Your task to perform on an android device: Open Yahoo.com Image 0: 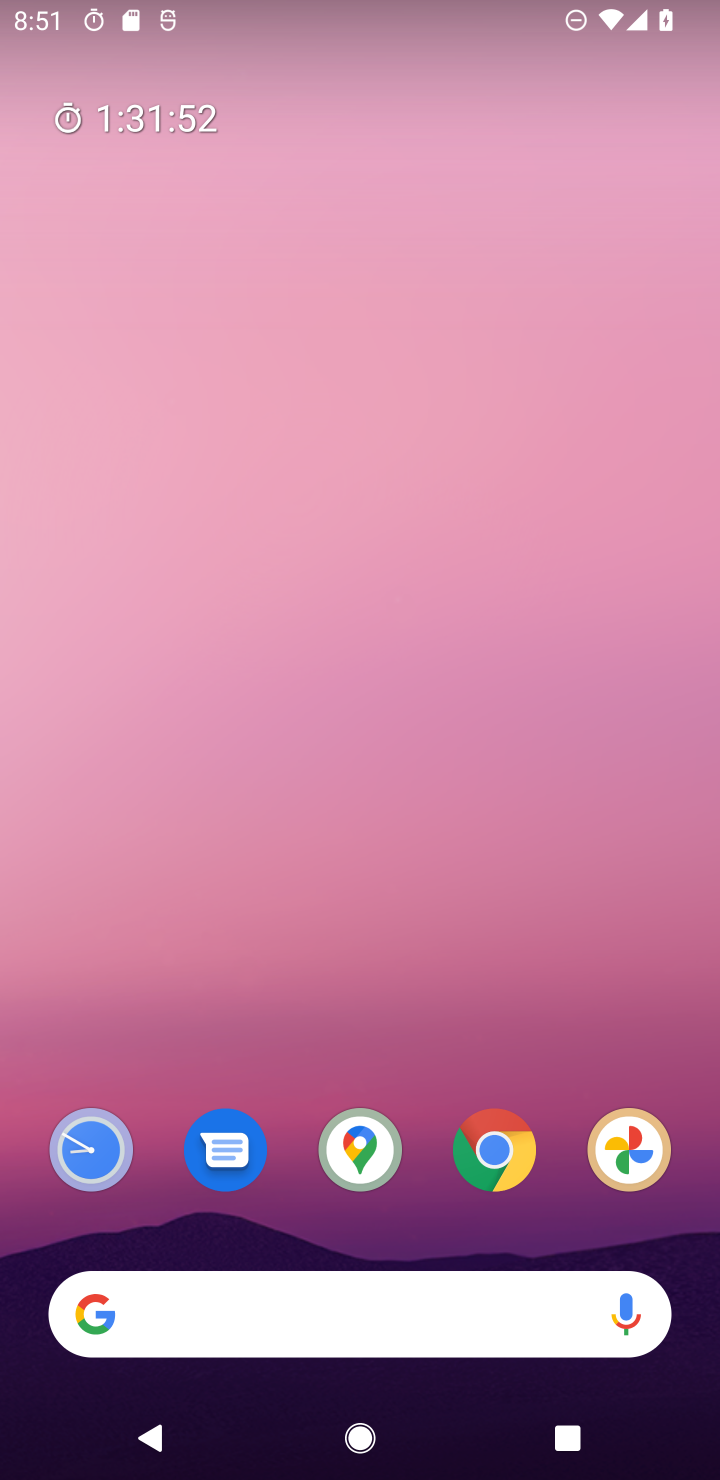
Step 0: drag from (378, 1285) to (705, 1135)
Your task to perform on an android device: Open Yahoo.com Image 1: 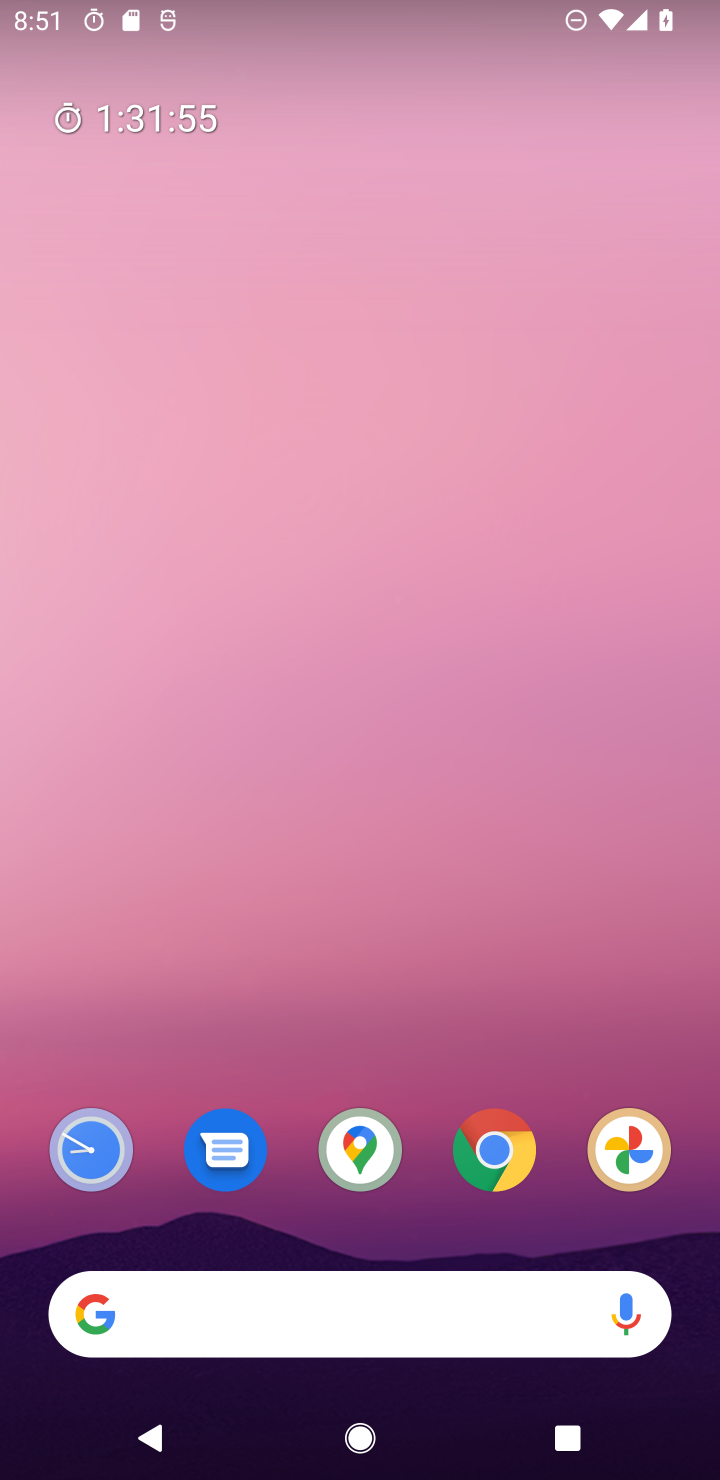
Step 1: click (377, 468)
Your task to perform on an android device: Open Yahoo.com Image 2: 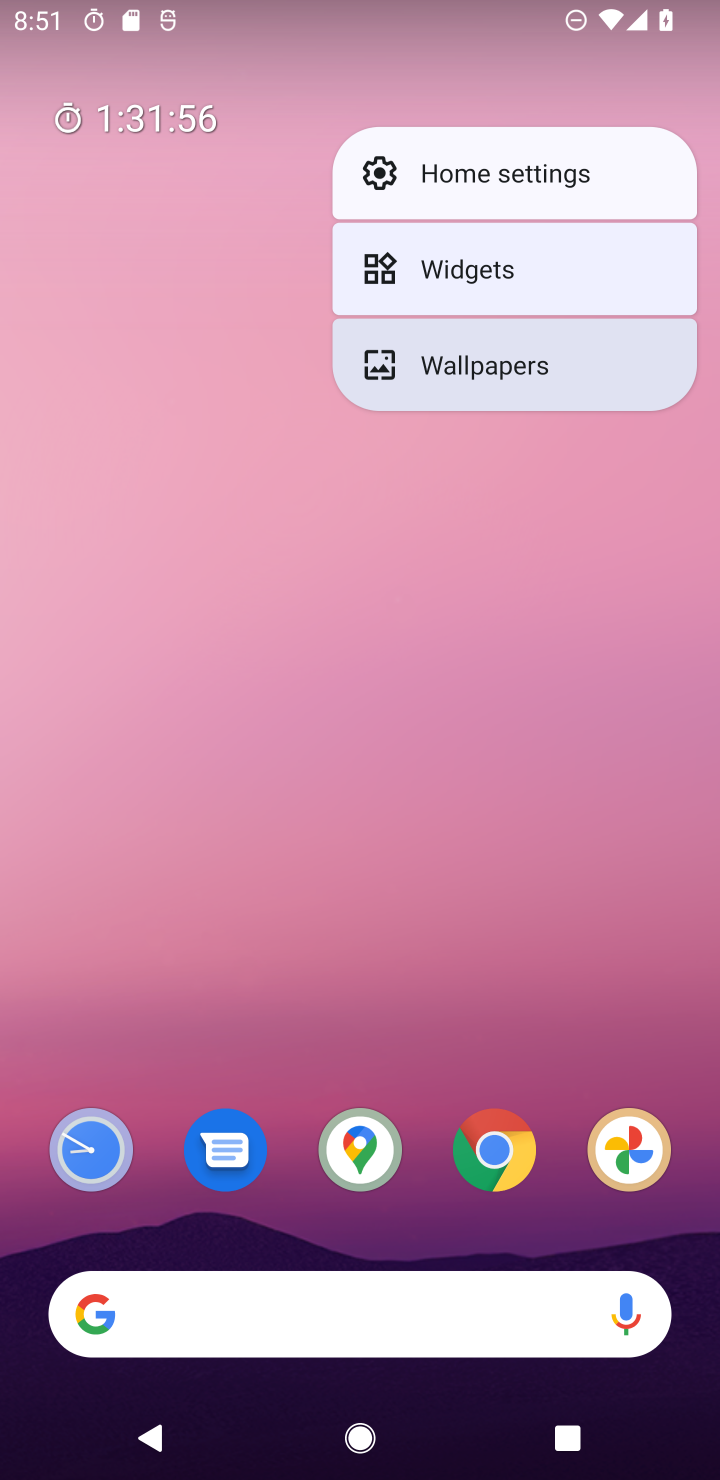
Step 2: drag from (523, 797) to (552, 45)
Your task to perform on an android device: Open Yahoo.com Image 3: 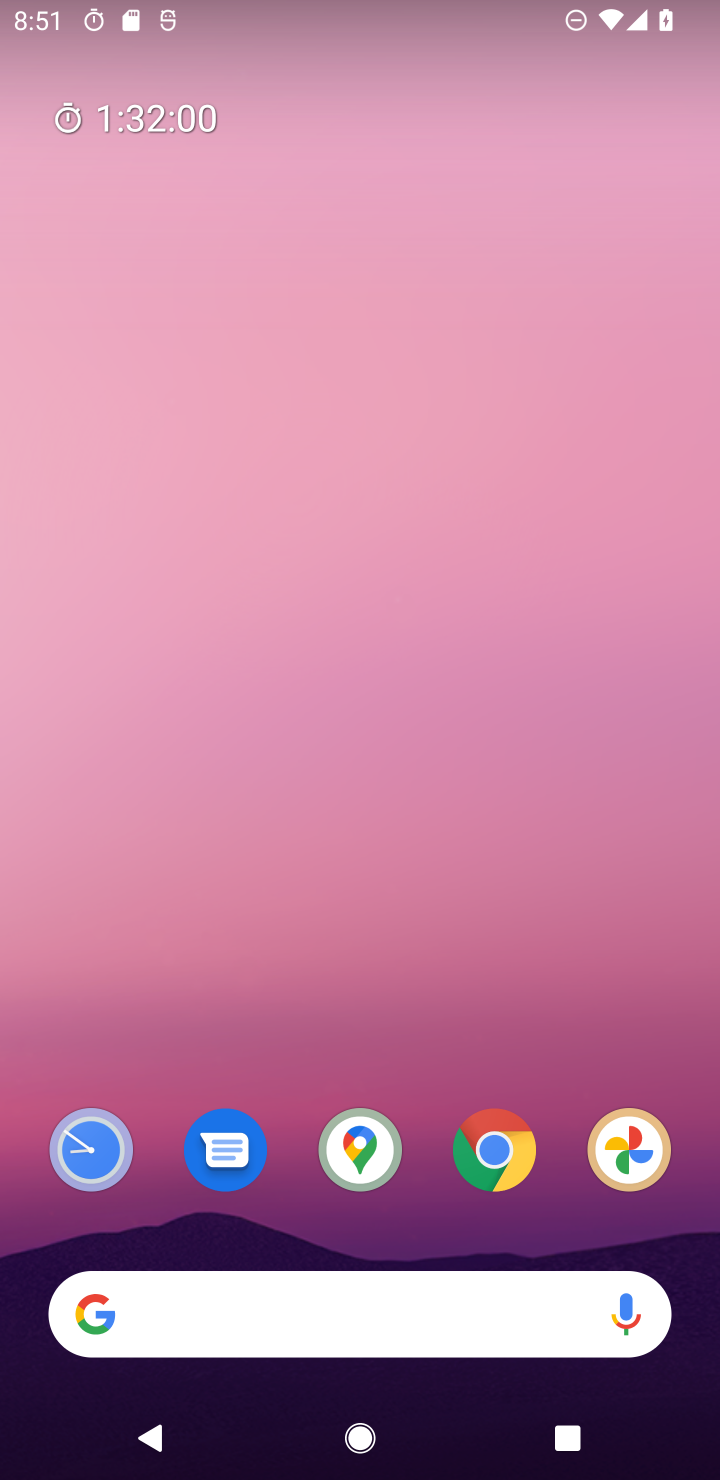
Step 3: drag from (457, 1272) to (502, 61)
Your task to perform on an android device: Open Yahoo.com Image 4: 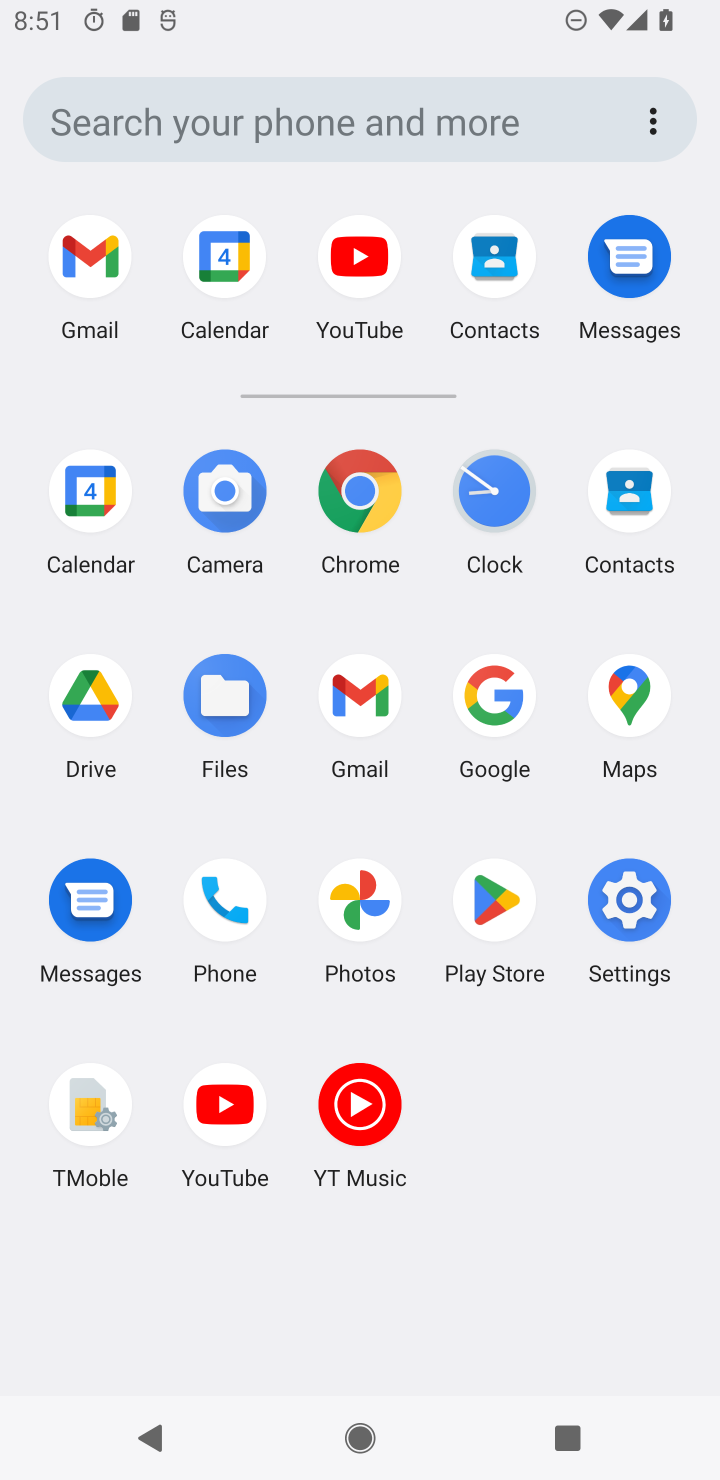
Step 4: click (341, 460)
Your task to perform on an android device: Open Yahoo.com Image 5: 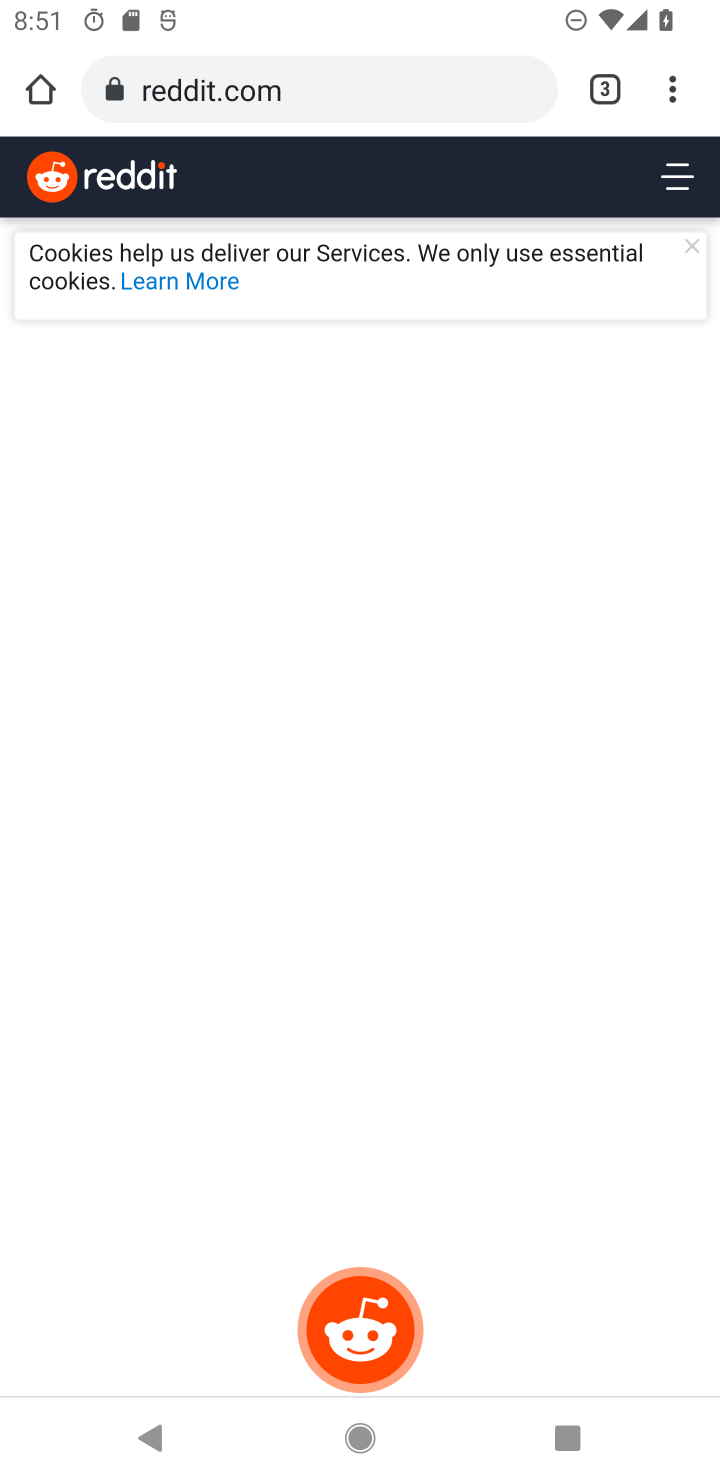
Step 5: drag from (662, 90) to (366, 280)
Your task to perform on an android device: Open Yahoo.com Image 6: 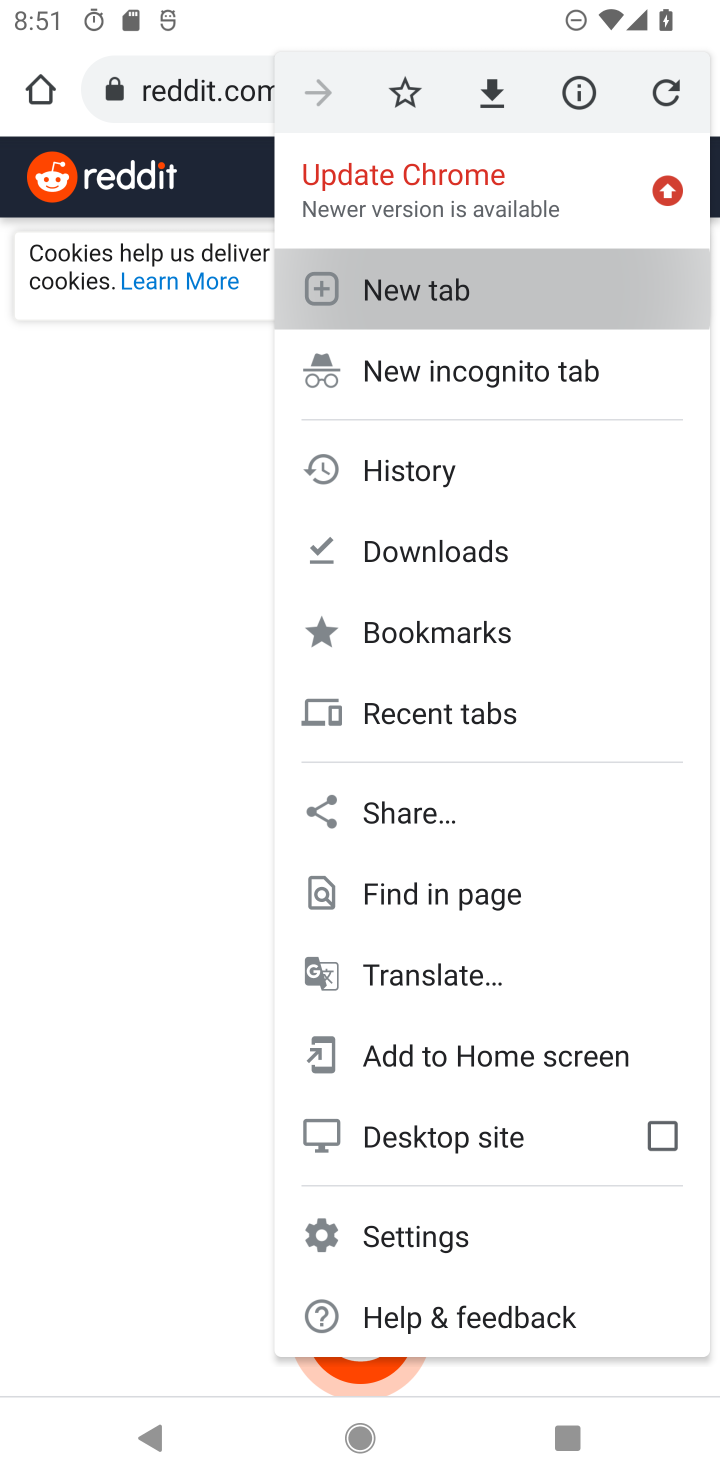
Step 6: click (366, 280)
Your task to perform on an android device: Open Yahoo.com Image 7: 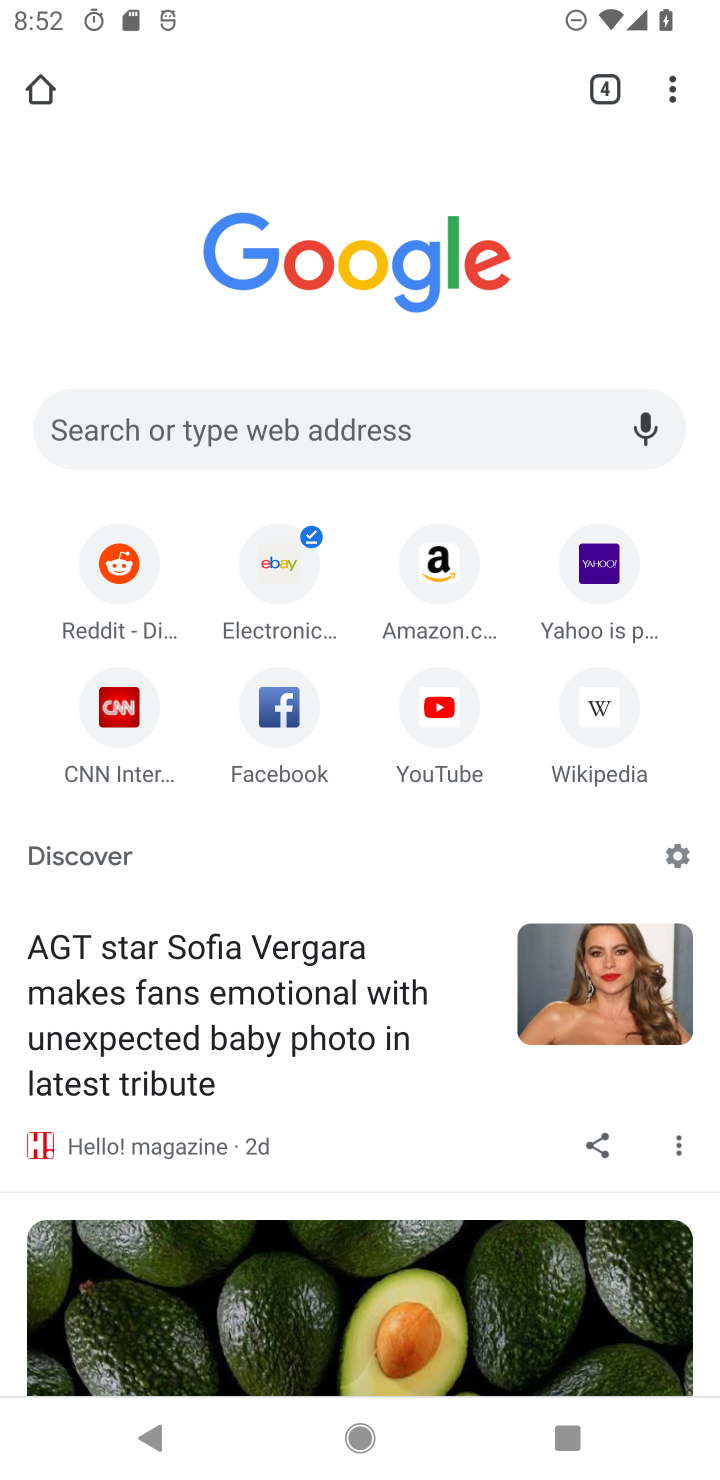
Step 7: click (599, 556)
Your task to perform on an android device: Open Yahoo.com Image 8: 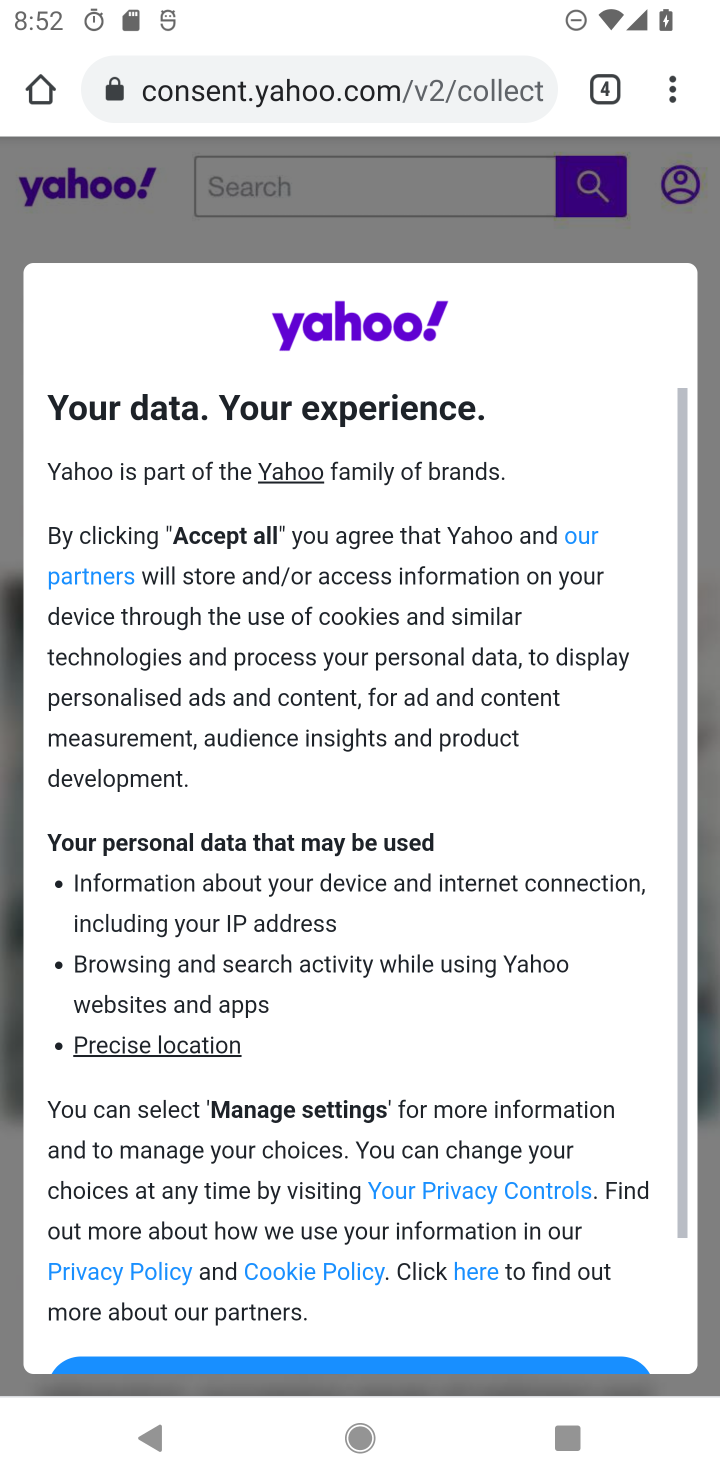
Step 8: task complete